Your task to perform on an android device: Do I have any events this weekend? Image 0: 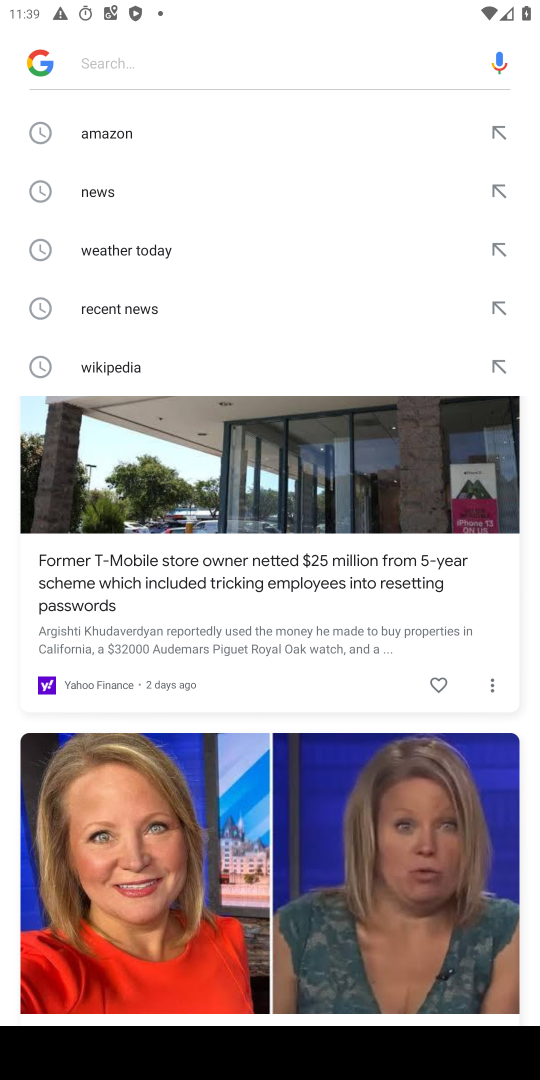
Step 0: press home button
Your task to perform on an android device: Do I have any events this weekend? Image 1: 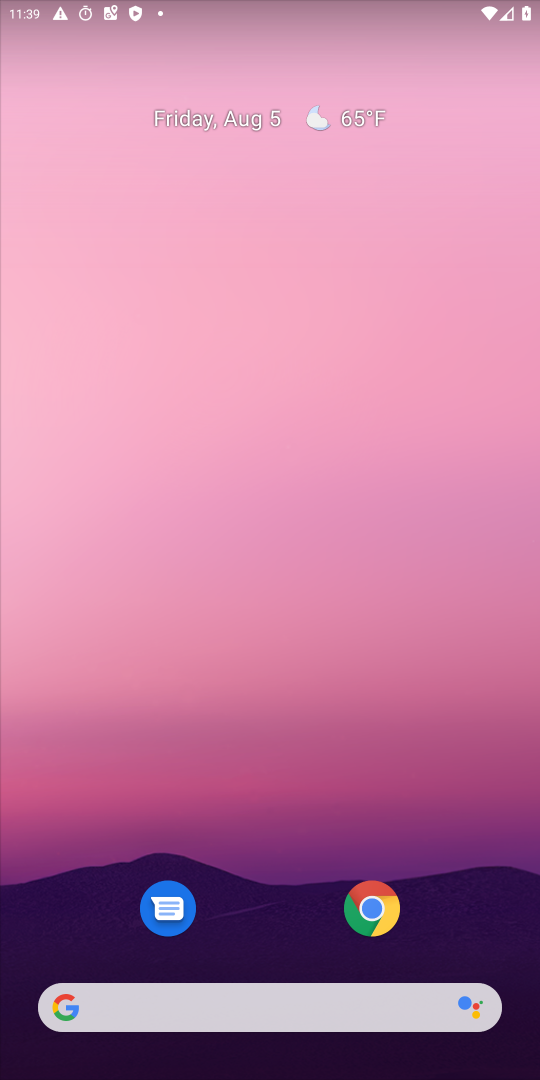
Step 1: drag from (112, 1028) to (351, 484)
Your task to perform on an android device: Do I have any events this weekend? Image 2: 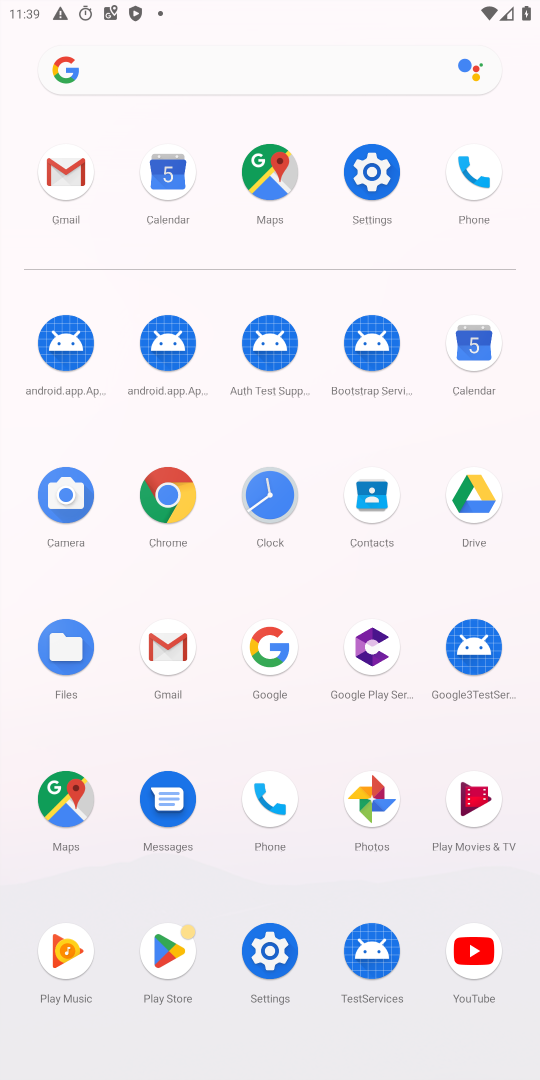
Step 2: click (464, 338)
Your task to perform on an android device: Do I have any events this weekend? Image 3: 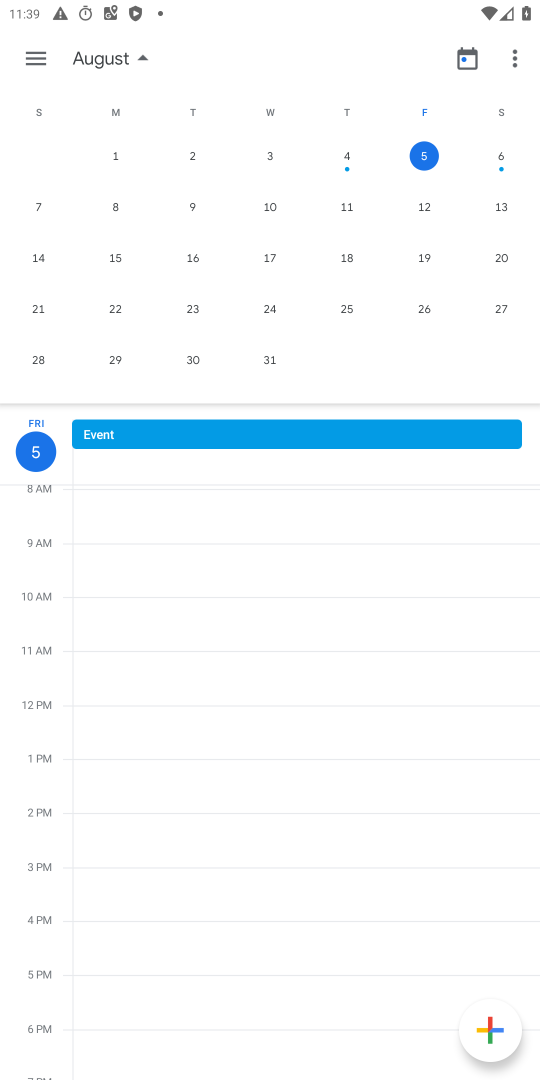
Step 3: task complete